Your task to perform on an android device: Open Google Chrome Image 0: 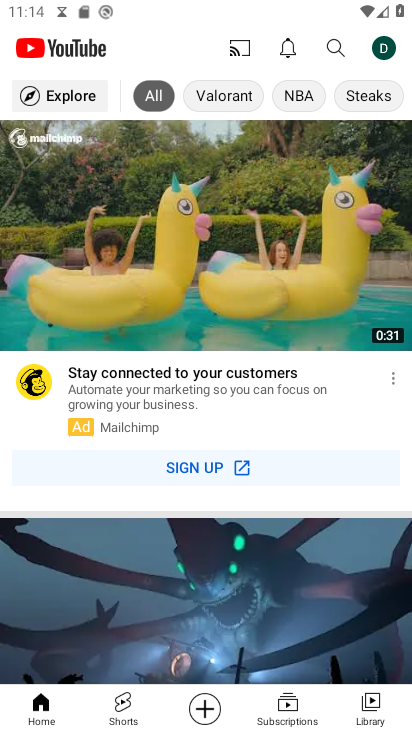
Step 0: press home button
Your task to perform on an android device: Open Google Chrome Image 1: 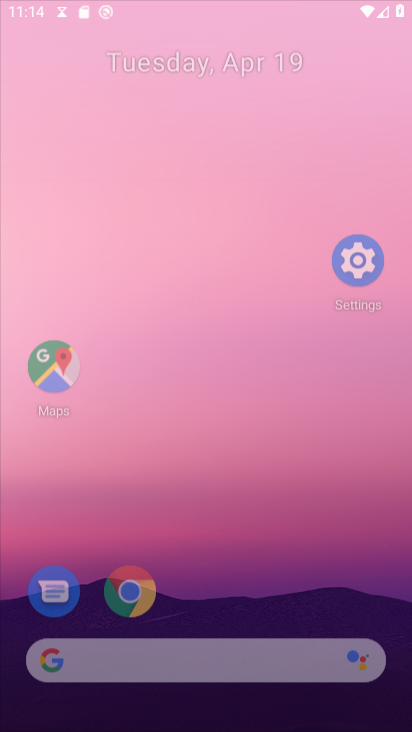
Step 1: drag from (236, 462) to (267, 82)
Your task to perform on an android device: Open Google Chrome Image 2: 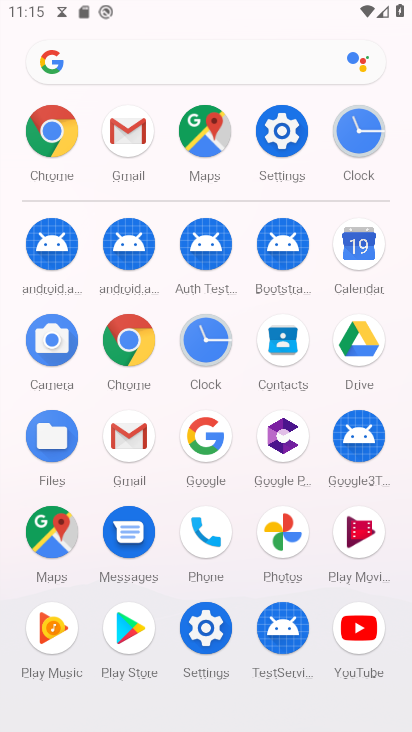
Step 2: click (118, 344)
Your task to perform on an android device: Open Google Chrome Image 3: 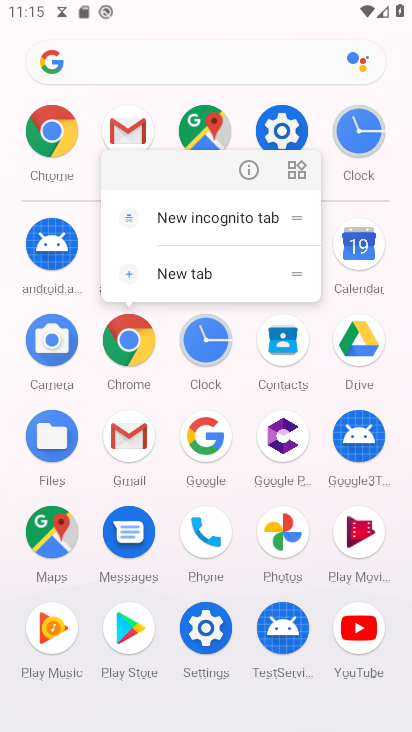
Step 3: click (253, 170)
Your task to perform on an android device: Open Google Chrome Image 4: 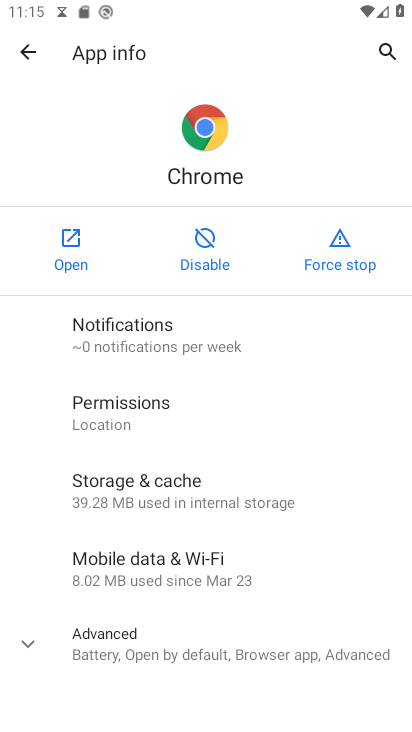
Step 4: click (74, 240)
Your task to perform on an android device: Open Google Chrome Image 5: 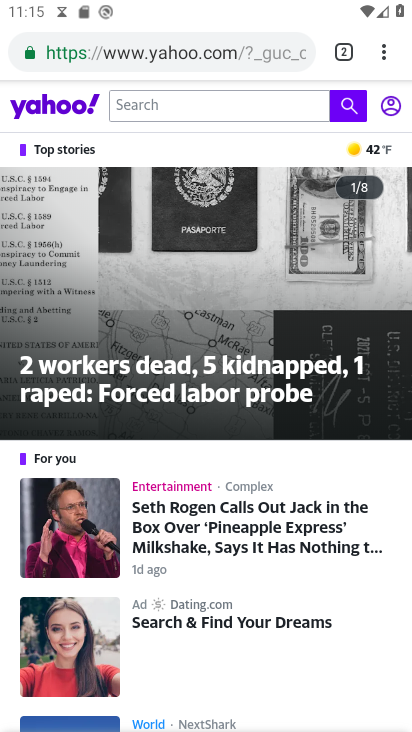
Step 5: task complete